Your task to perform on an android device: turn off translation in the chrome app Image 0: 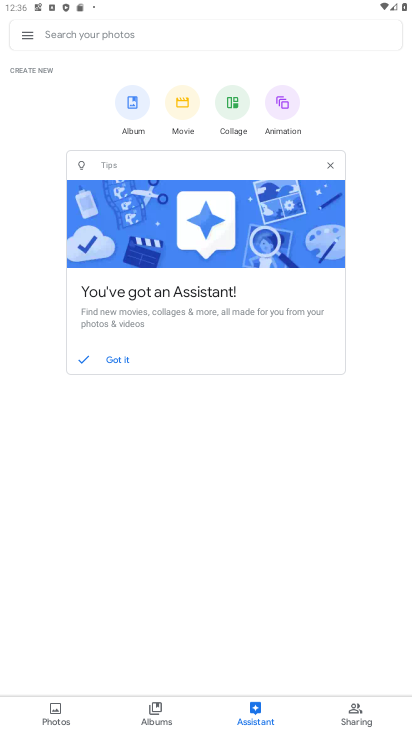
Step 0: press home button
Your task to perform on an android device: turn off translation in the chrome app Image 1: 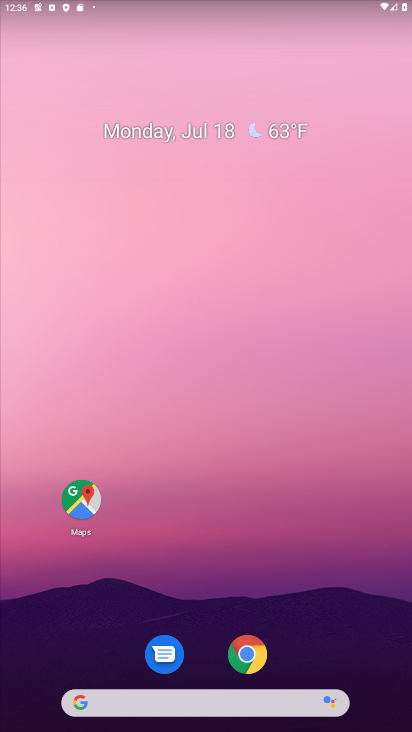
Step 1: click (268, 654)
Your task to perform on an android device: turn off translation in the chrome app Image 2: 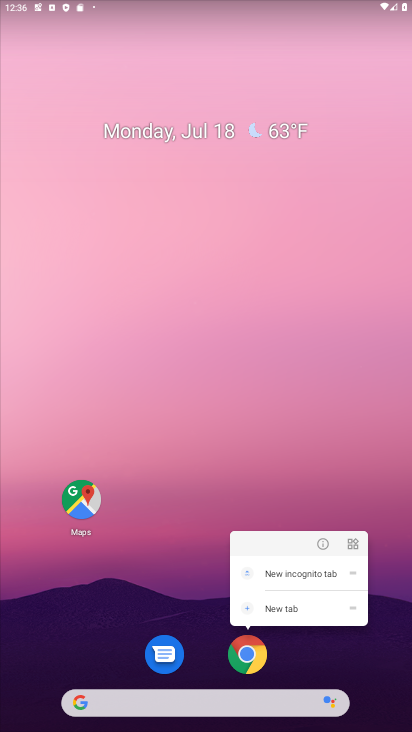
Step 2: click (253, 661)
Your task to perform on an android device: turn off translation in the chrome app Image 3: 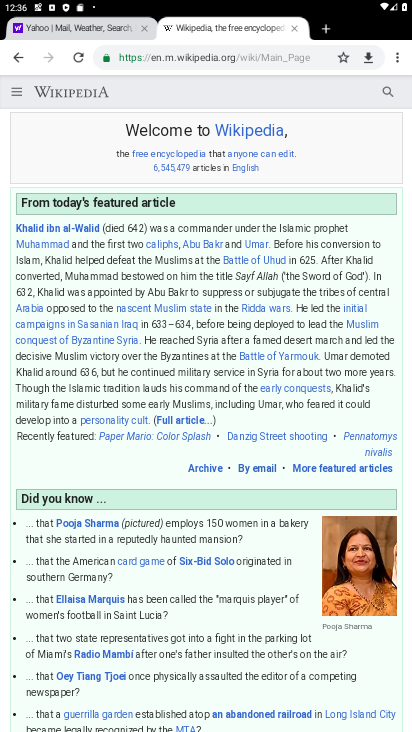
Step 3: click (390, 50)
Your task to perform on an android device: turn off translation in the chrome app Image 4: 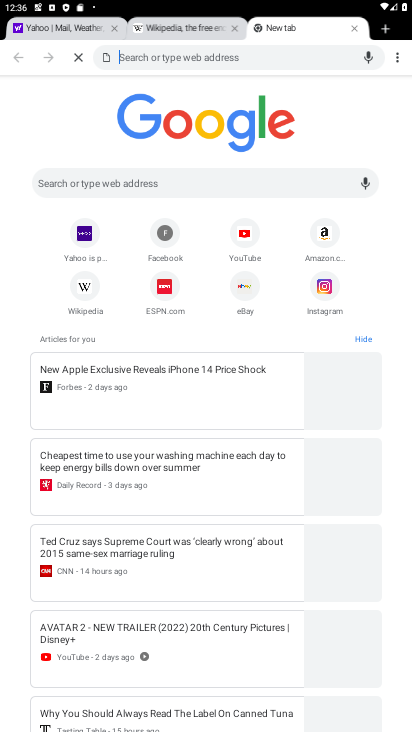
Step 4: click (390, 50)
Your task to perform on an android device: turn off translation in the chrome app Image 5: 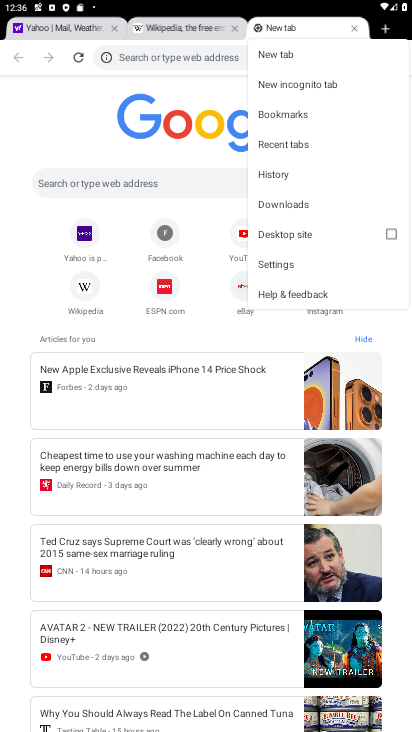
Step 5: click (313, 266)
Your task to perform on an android device: turn off translation in the chrome app Image 6: 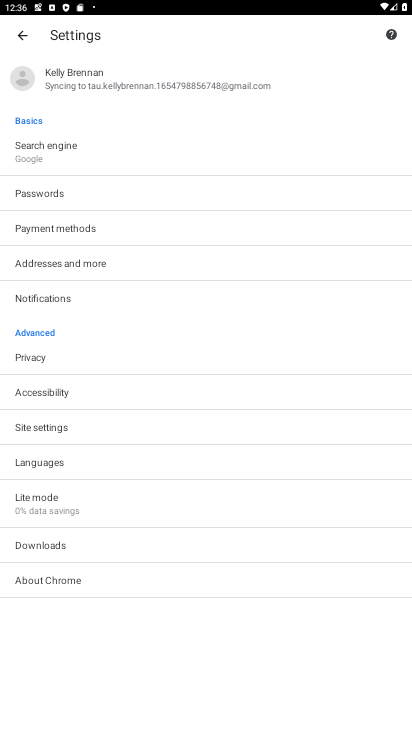
Step 6: click (69, 468)
Your task to perform on an android device: turn off translation in the chrome app Image 7: 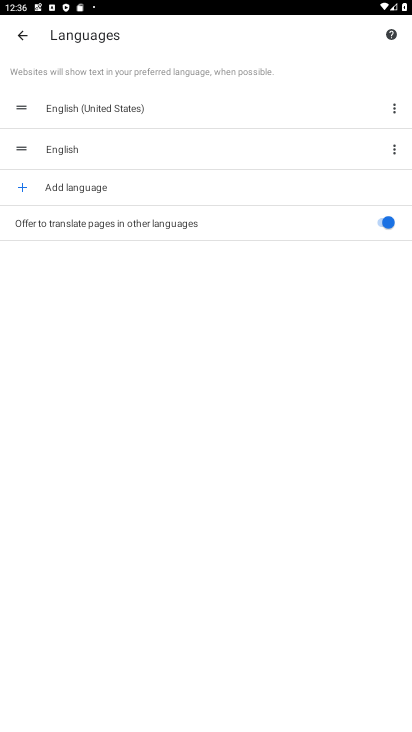
Step 7: click (364, 221)
Your task to perform on an android device: turn off translation in the chrome app Image 8: 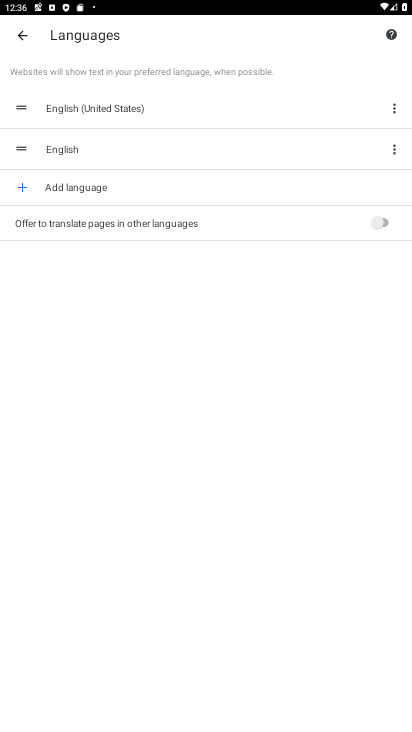
Step 8: task complete